Your task to perform on an android device: choose inbox layout in the gmail app Image 0: 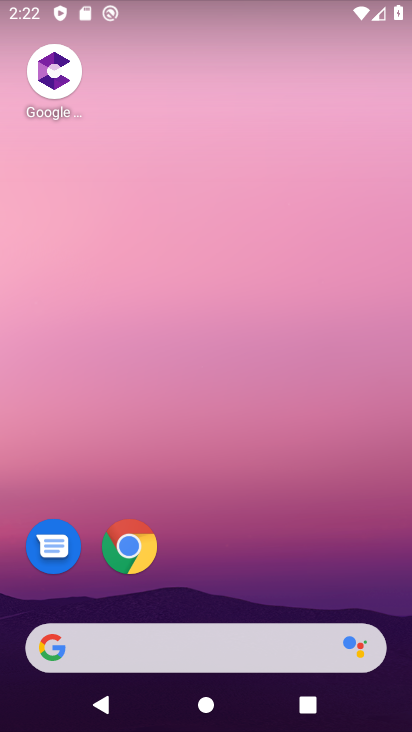
Step 0: press home button
Your task to perform on an android device: choose inbox layout in the gmail app Image 1: 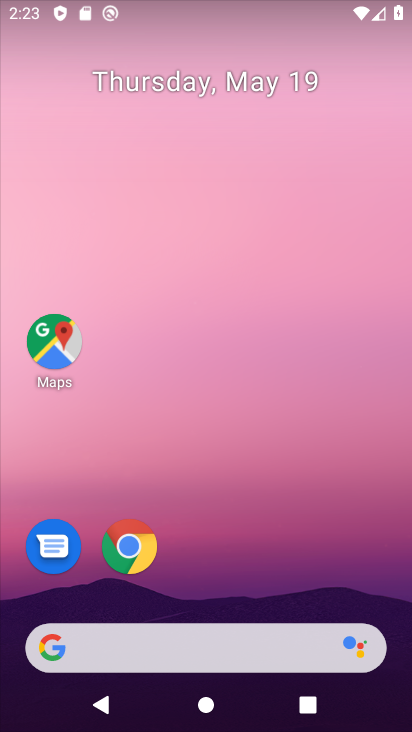
Step 1: drag from (163, 625) to (244, 132)
Your task to perform on an android device: choose inbox layout in the gmail app Image 2: 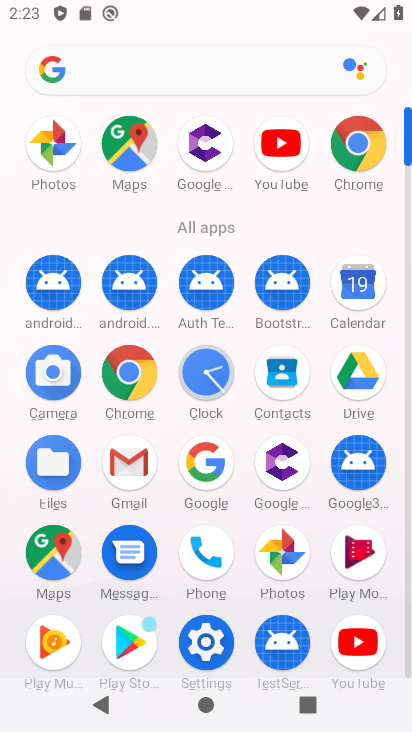
Step 2: click (123, 464)
Your task to perform on an android device: choose inbox layout in the gmail app Image 3: 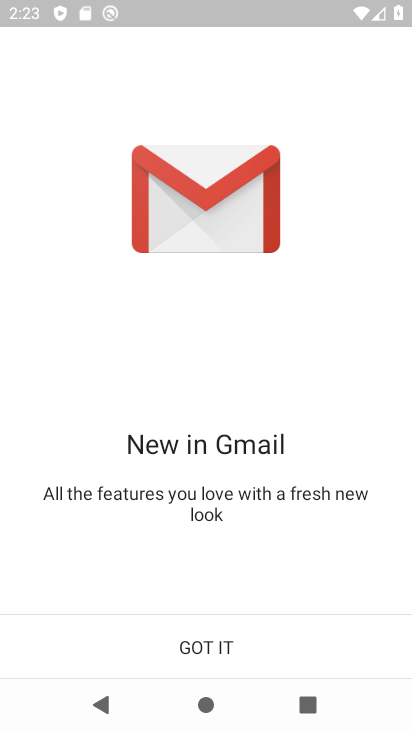
Step 3: click (204, 652)
Your task to perform on an android device: choose inbox layout in the gmail app Image 4: 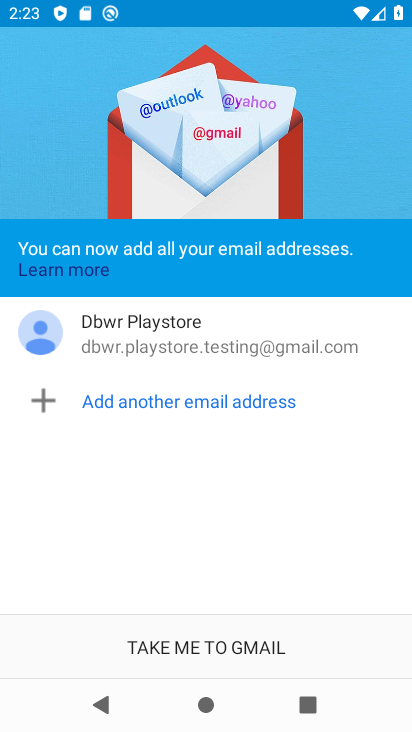
Step 4: click (205, 640)
Your task to perform on an android device: choose inbox layout in the gmail app Image 5: 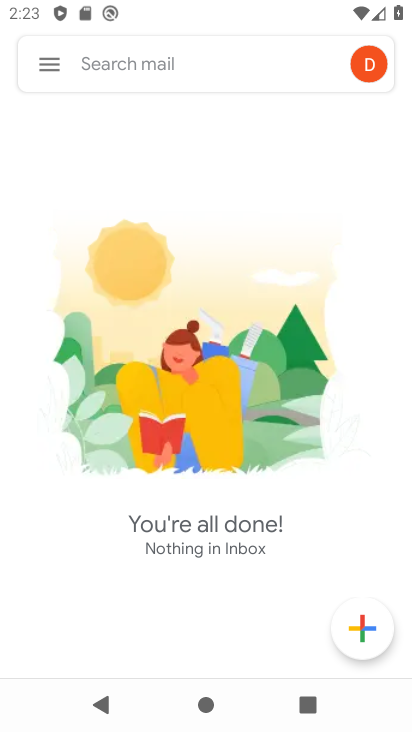
Step 5: click (44, 70)
Your task to perform on an android device: choose inbox layout in the gmail app Image 6: 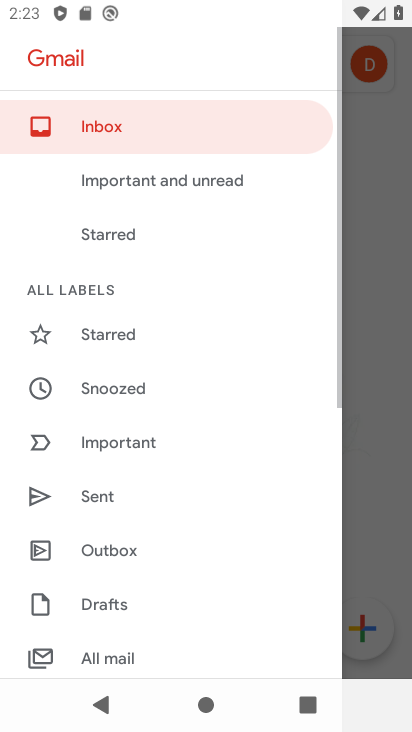
Step 6: drag from (192, 590) to (282, 157)
Your task to perform on an android device: choose inbox layout in the gmail app Image 7: 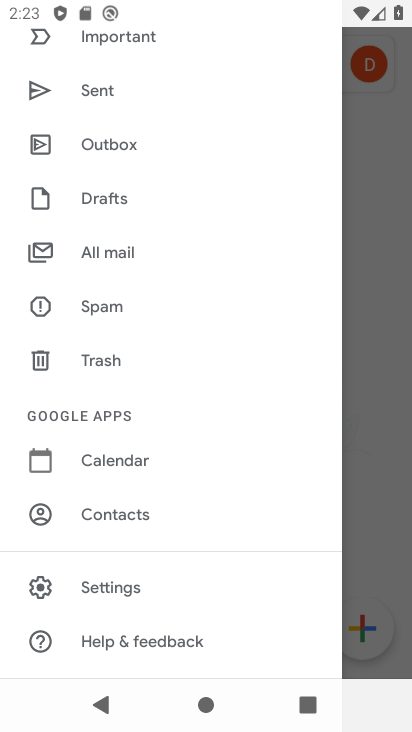
Step 7: click (124, 585)
Your task to perform on an android device: choose inbox layout in the gmail app Image 8: 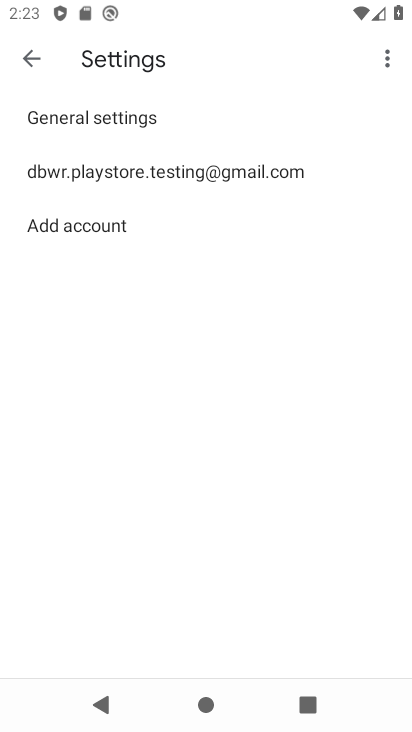
Step 8: click (238, 172)
Your task to perform on an android device: choose inbox layout in the gmail app Image 9: 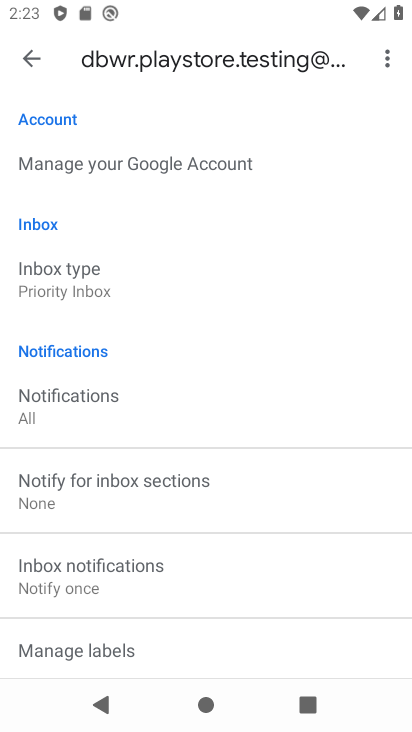
Step 9: click (85, 281)
Your task to perform on an android device: choose inbox layout in the gmail app Image 10: 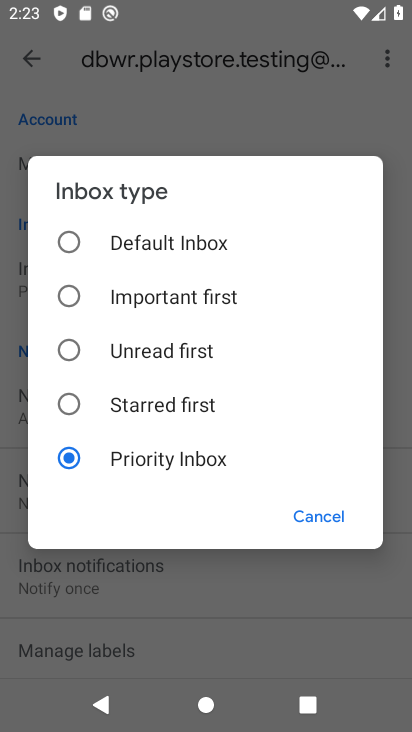
Step 10: click (68, 243)
Your task to perform on an android device: choose inbox layout in the gmail app Image 11: 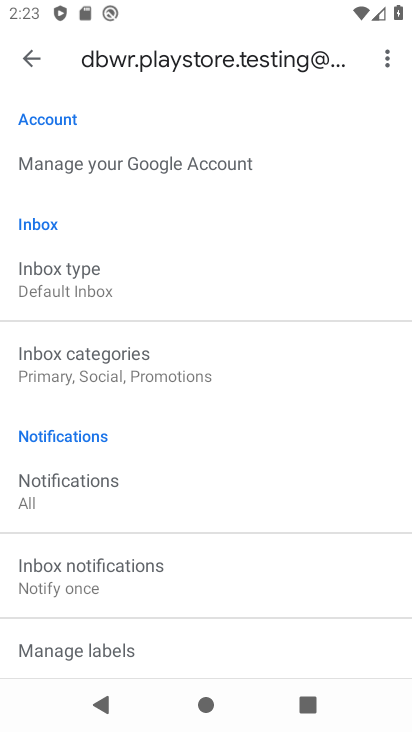
Step 11: task complete